Your task to perform on an android device: turn on improve location accuracy Image 0: 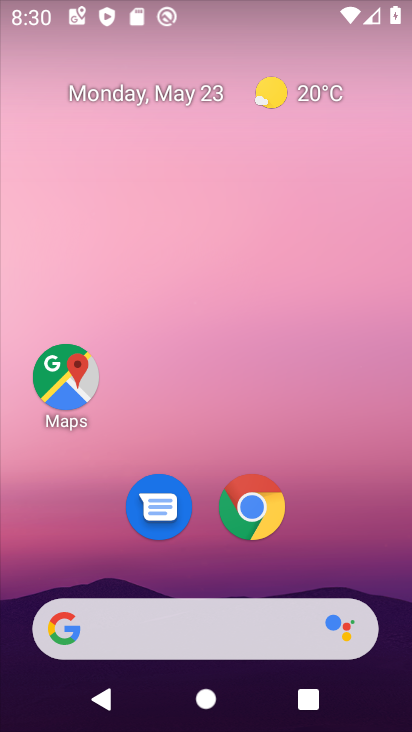
Step 0: drag from (346, 556) to (275, 28)
Your task to perform on an android device: turn on improve location accuracy Image 1: 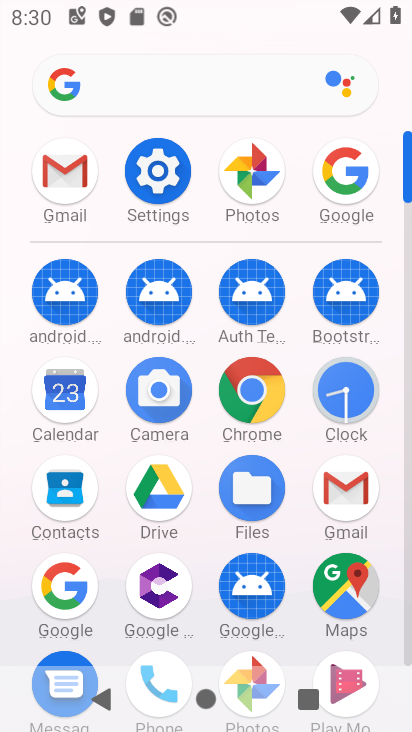
Step 1: click (159, 182)
Your task to perform on an android device: turn on improve location accuracy Image 2: 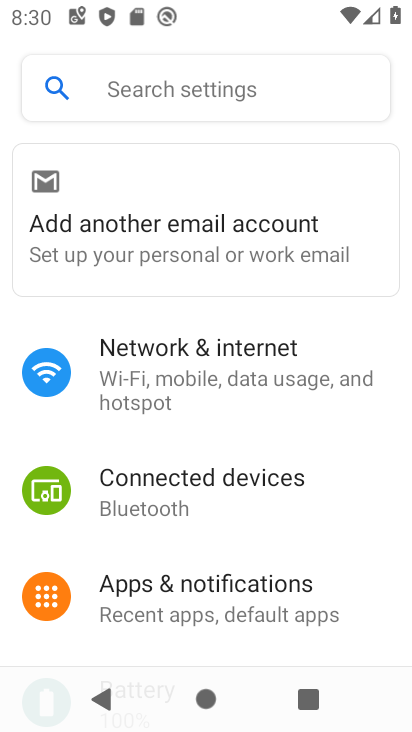
Step 2: drag from (357, 560) to (311, 6)
Your task to perform on an android device: turn on improve location accuracy Image 3: 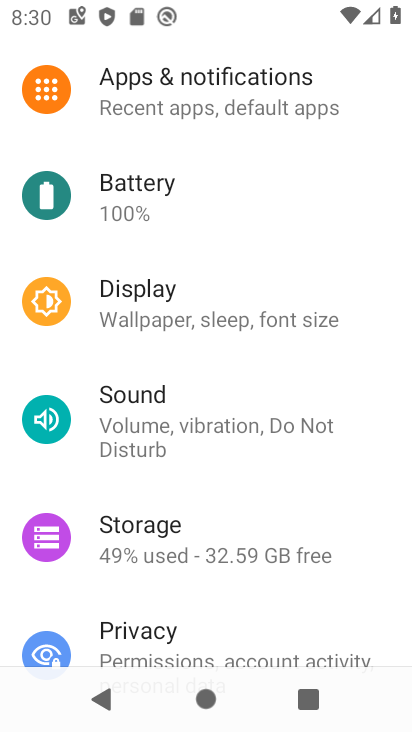
Step 3: drag from (381, 496) to (330, 136)
Your task to perform on an android device: turn on improve location accuracy Image 4: 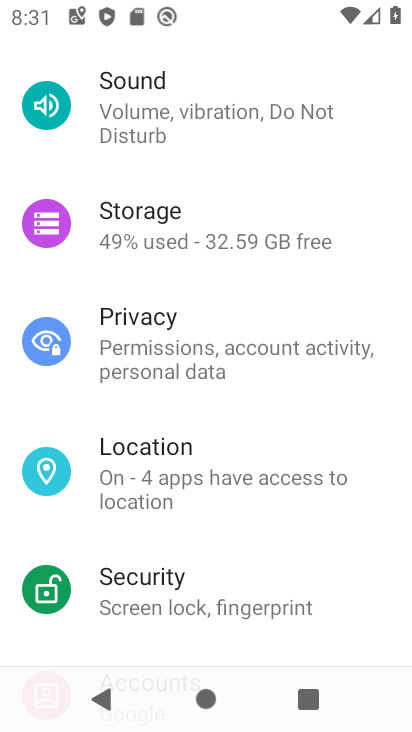
Step 4: click (139, 464)
Your task to perform on an android device: turn on improve location accuracy Image 5: 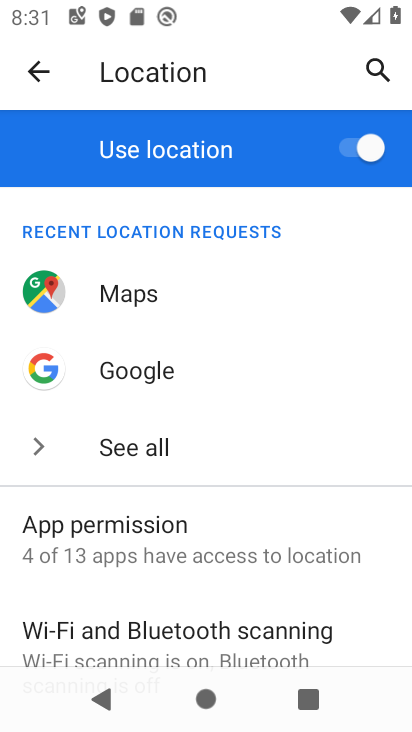
Step 5: drag from (230, 580) to (201, 105)
Your task to perform on an android device: turn on improve location accuracy Image 6: 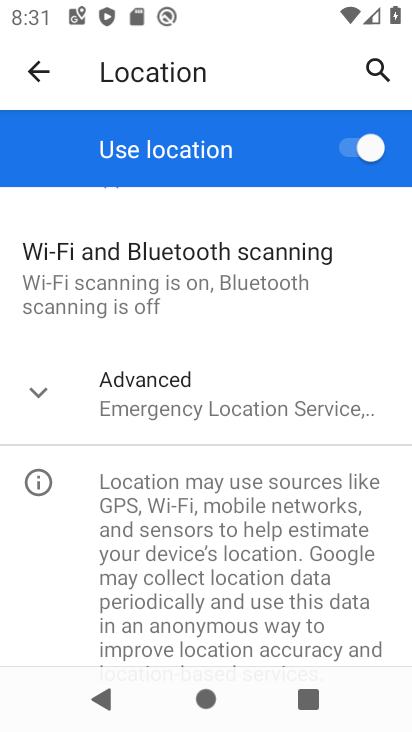
Step 6: click (34, 395)
Your task to perform on an android device: turn on improve location accuracy Image 7: 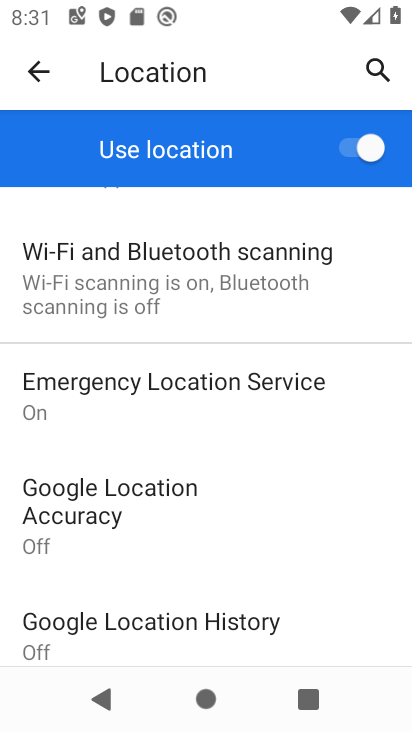
Step 7: click (85, 518)
Your task to perform on an android device: turn on improve location accuracy Image 8: 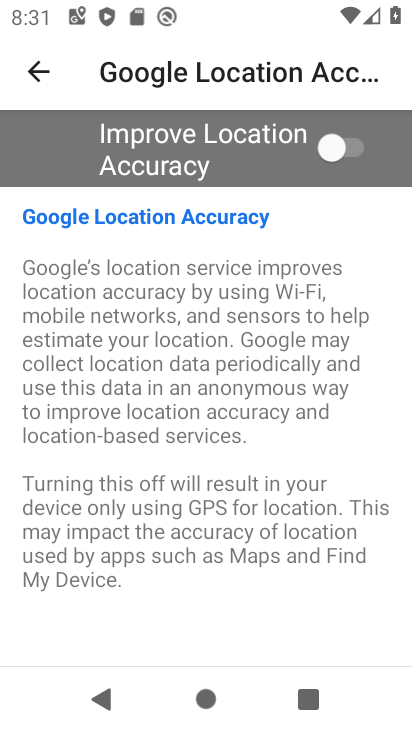
Step 8: click (329, 149)
Your task to perform on an android device: turn on improve location accuracy Image 9: 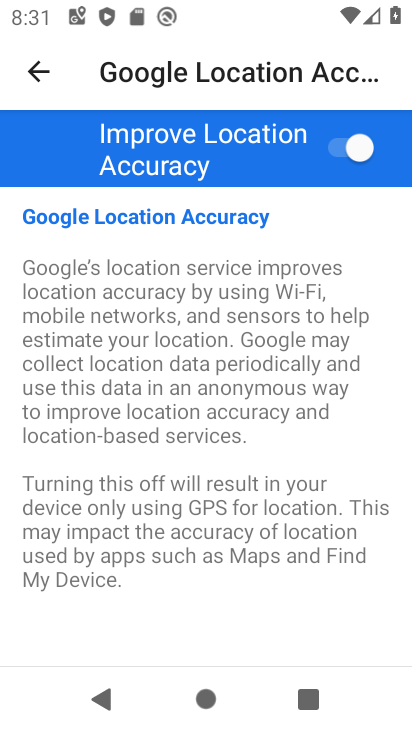
Step 9: task complete